Your task to perform on an android device: Go to internet settings Image 0: 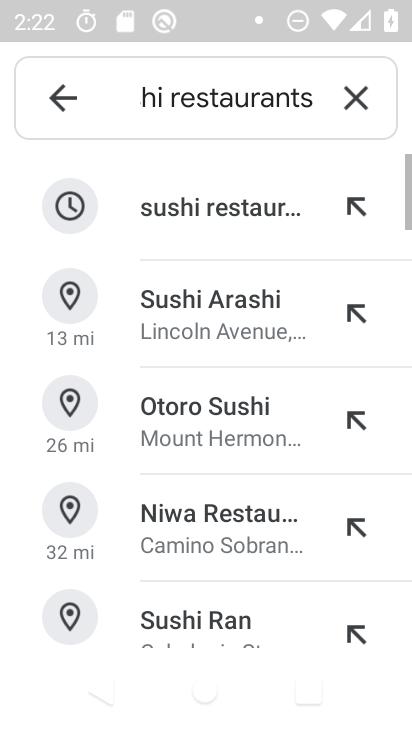
Step 0: press home button
Your task to perform on an android device: Go to internet settings Image 1: 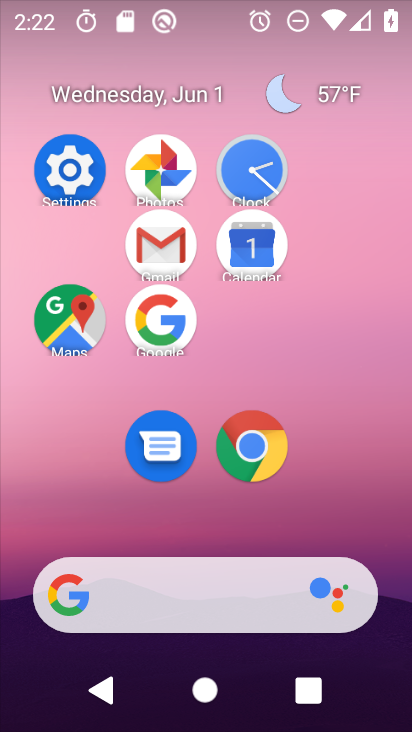
Step 1: click (54, 169)
Your task to perform on an android device: Go to internet settings Image 2: 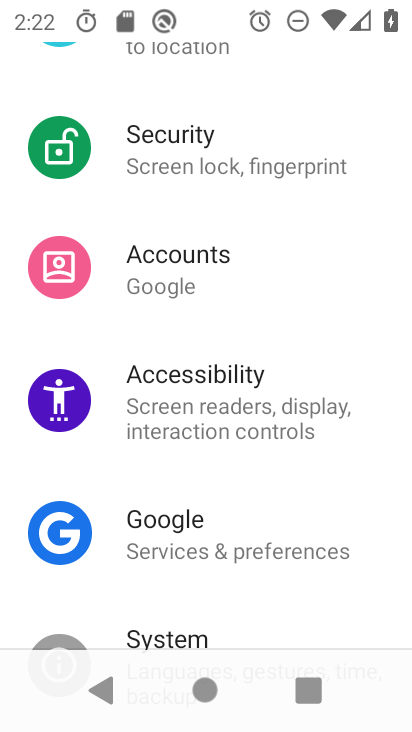
Step 2: drag from (278, 150) to (285, 540)
Your task to perform on an android device: Go to internet settings Image 3: 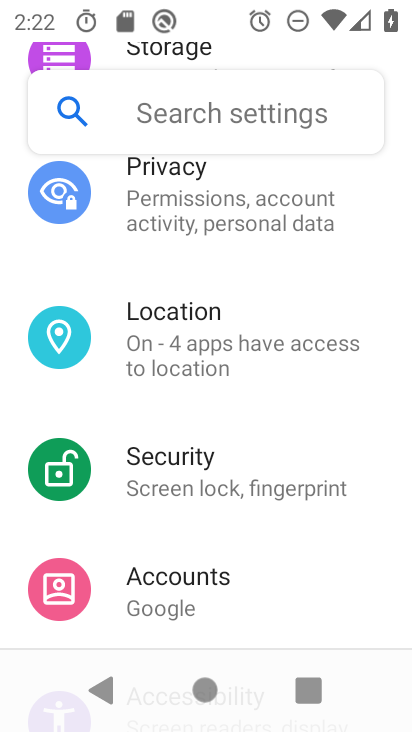
Step 3: drag from (268, 194) to (264, 642)
Your task to perform on an android device: Go to internet settings Image 4: 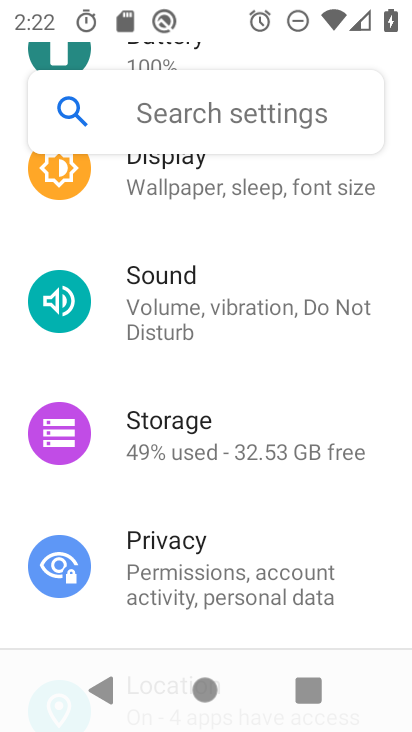
Step 4: drag from (333, 189) to (290, 598)
Your task to perform on an android device: Go to internet settings Image 5: 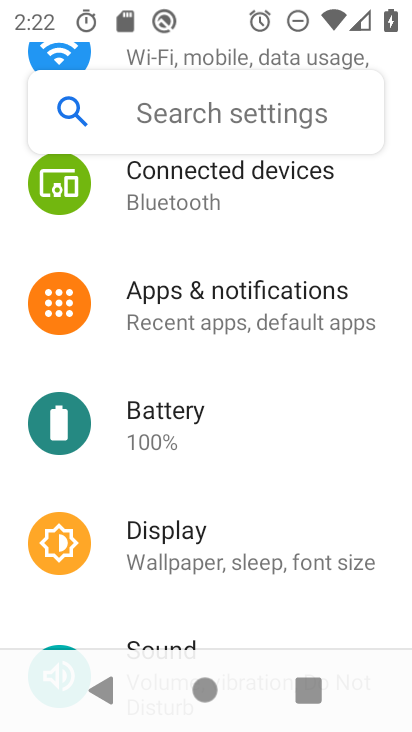
Step 5: drag from (283, 154) to (259, 553)
Your task to perform on an android device: Go to internet settings Image 6: 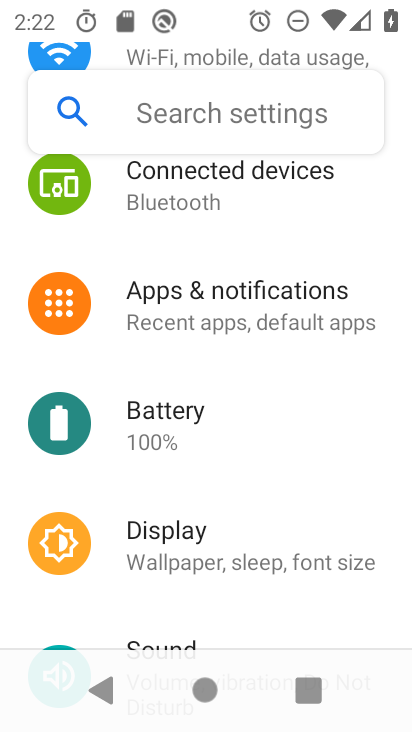
Step 6: drag from (350, 137) to (306, 464)
Your task to perform on an android device: Go to internet settings Image 7: 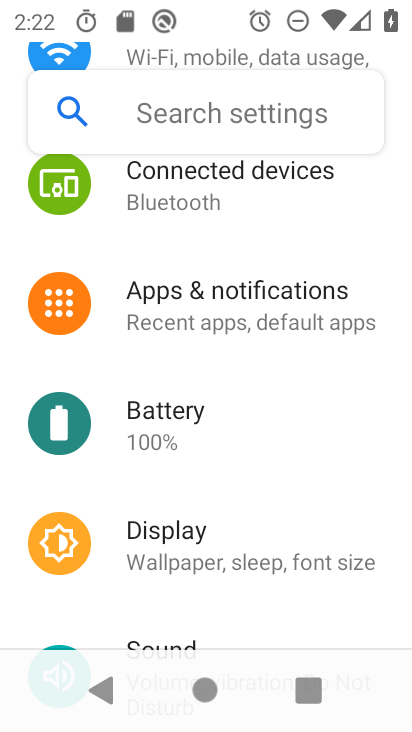
Step 7: drag from (362, 186) to (314, 464)
Your task to perform on an android device: Go to internet settings Image 8: 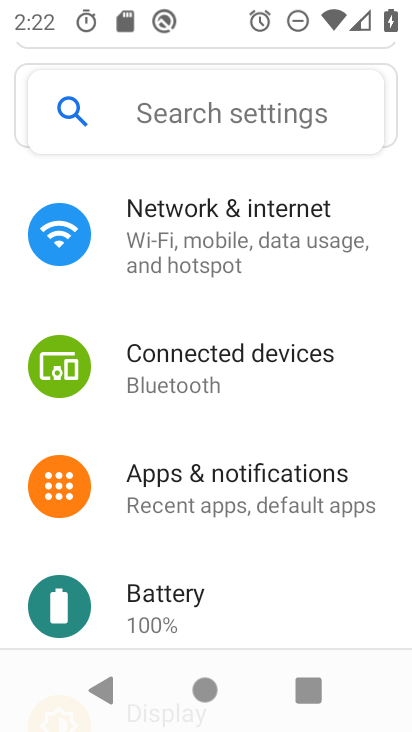
Step 8: click (215, 166)
Your task to perform on an android device: Go to internet settings Image 9: 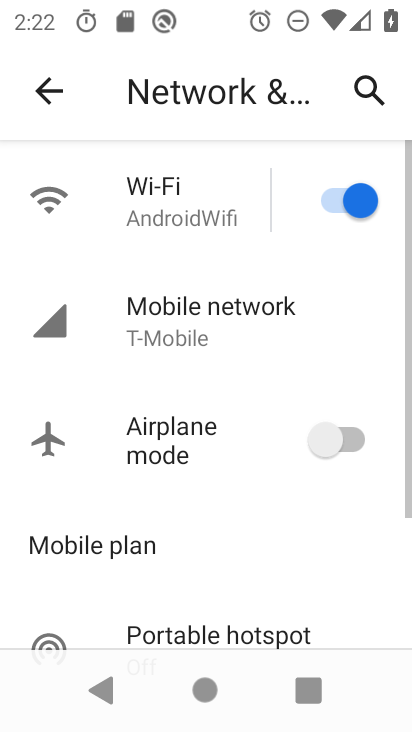
Step 9: task complete